Your task to perform on an android device: toggle translation in the chrome app Image 0: 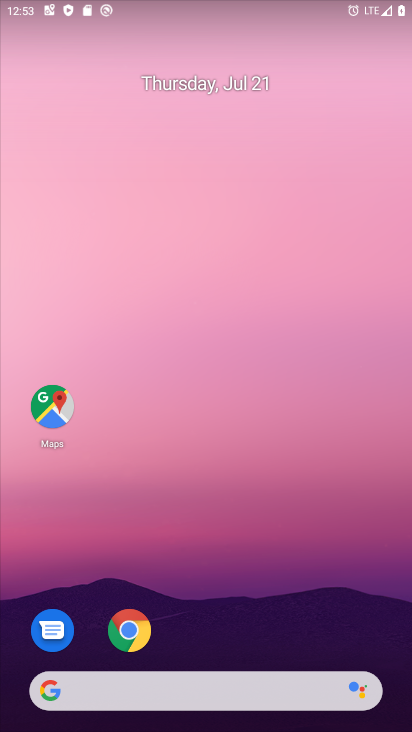
Step 0: click (136, 639)
Your task to perform on an android device: toggle translation in the chrome app Image 1: 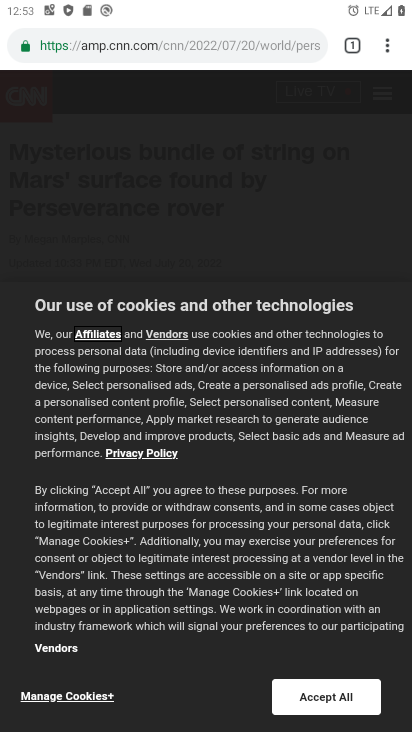
Step 1: click (394, 60)
Your task to perform on an android device: toggle translation in the chrome app Image 2: 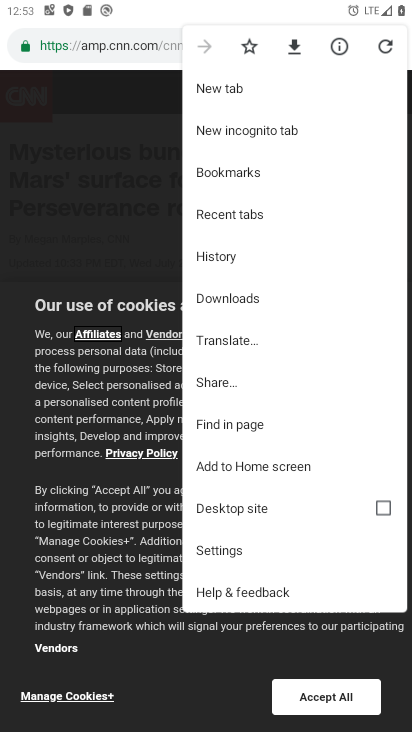
Step 2: click (216, 570)
Your task to perform on an android device: toggle translation in the chrome app Image 3: 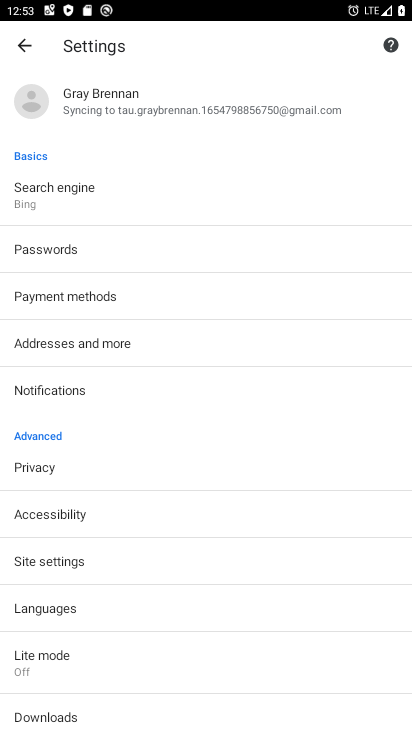
Step 3: click (72, 607)
Your task to perform on an android device: toggle translation in the chrome app Image 4: 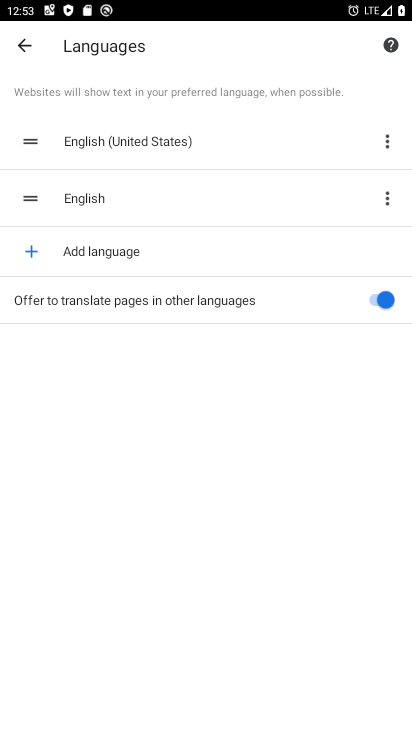
Step 4: click (373, 300)
Your task to perform on an android device: toggle translation in the chrome app Image 5: 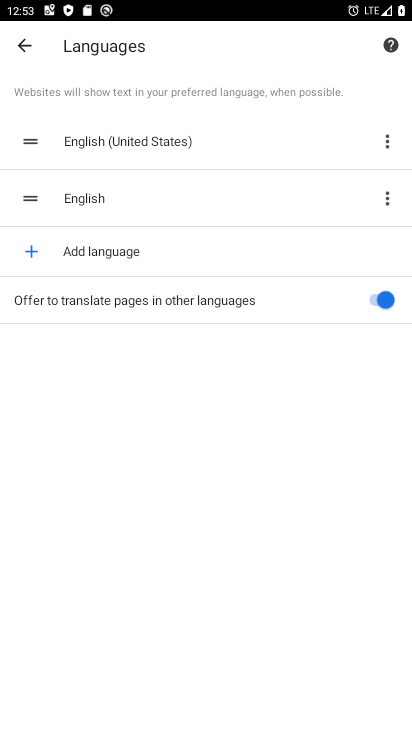
Step 5: click (373, 300)
Your task to perform on an android device: toggle translation in the chrome app Image 6: 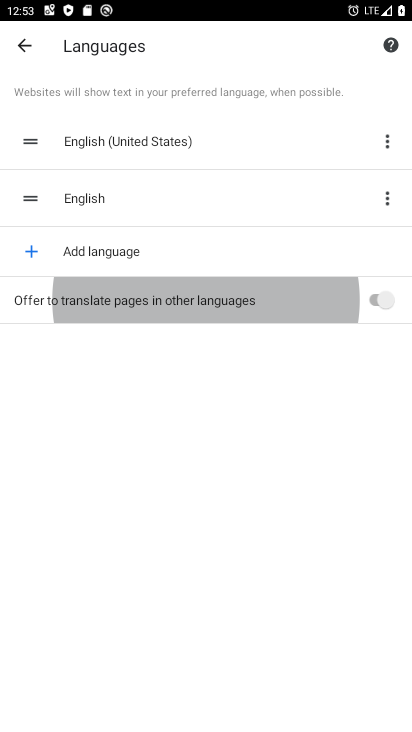
Step 6: click (373, 300)
Your task to perform on an android device: toggle translation in the chrome app Image 7: 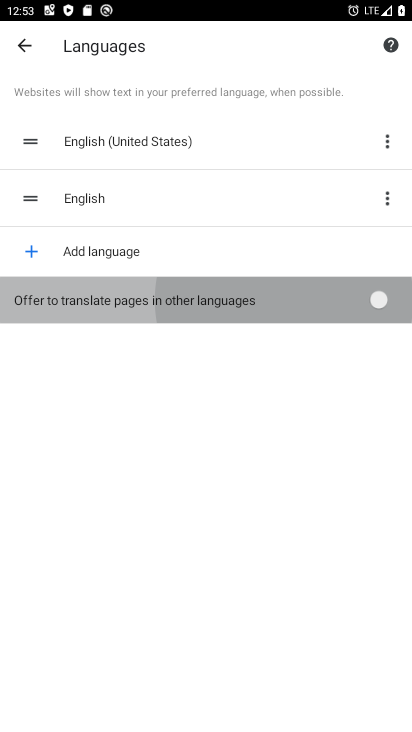
Step 7: click (373, 300)
Your task to perform on an android device: toggle translation in the chrome app Image 8: 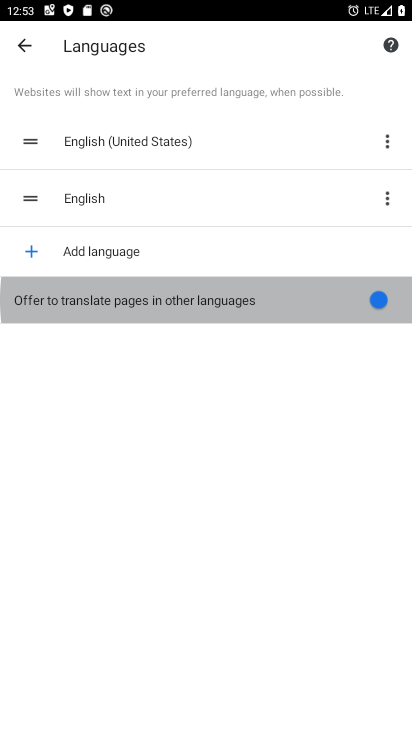
Step 8: click (373, 300)
Your task to perform on an android device: toggle translation in the chrome app Image 9: 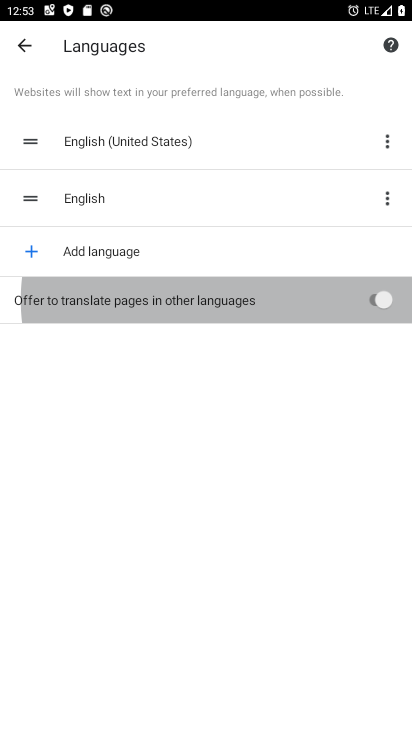
Step 9: click (373, 300)
Your task to perform on an android device: toggle translation in the chrome app Image 10: 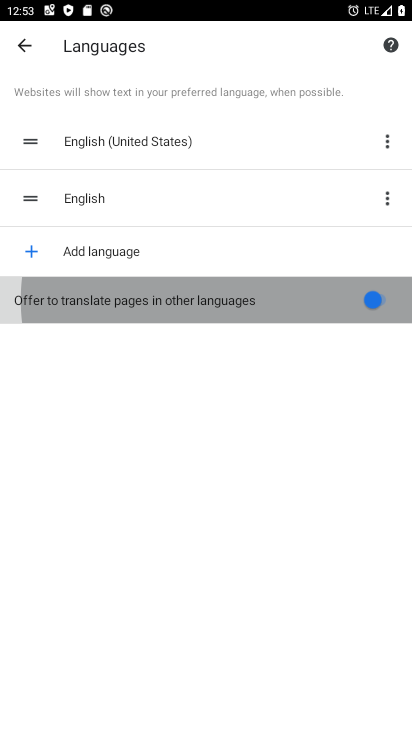
Step 10: click (373, 300)
Your task to perform on an android device: toggle translation in the chrome app Image 11: 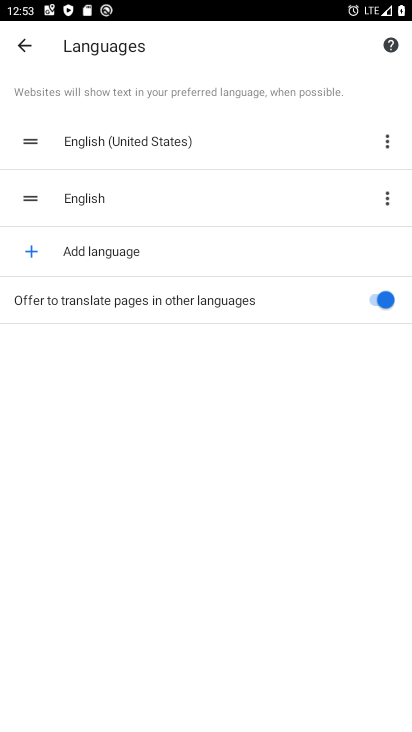
Step 11: task complete